Your task to perform on an android device: Search for pizza restaurants on Maps Image 0: 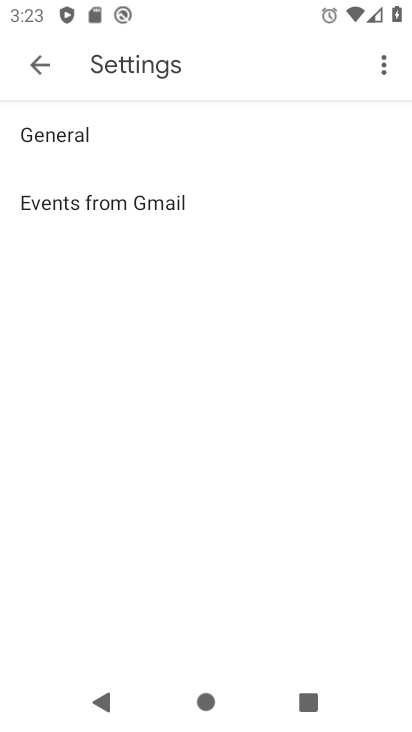
Step 0: press home button
Your task to perform on an android device: Search for pizza restaurants on Maps Image 1: 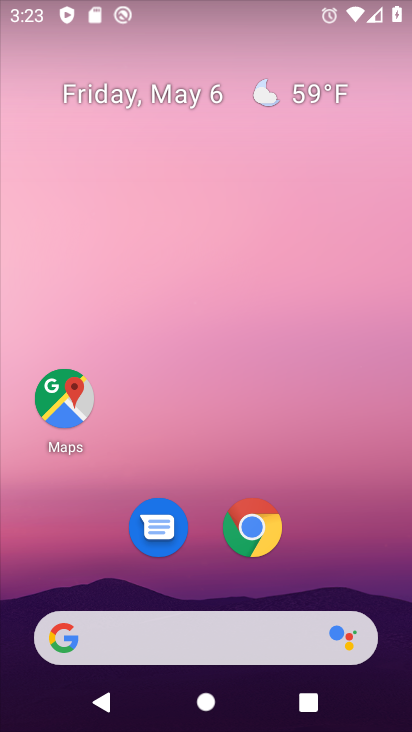
Step 1: click (47, 394)
Your task to perform on an android device: Search for pizza restaurants on Maps Image 2: 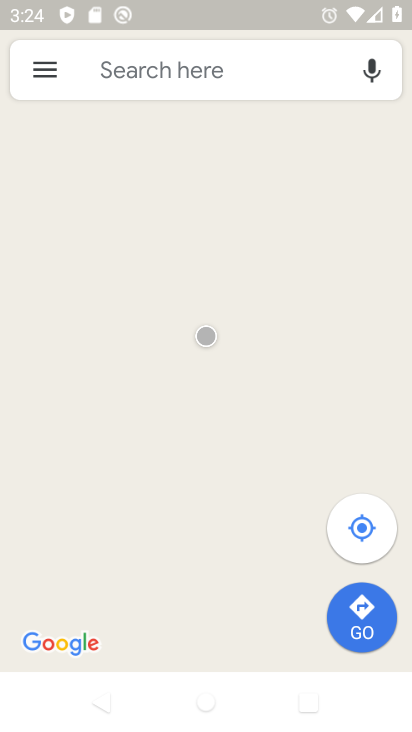
Step 2: click (173, 66)
Your task to perform on an android device: Search for pizza restaurants on Maps Image 3: 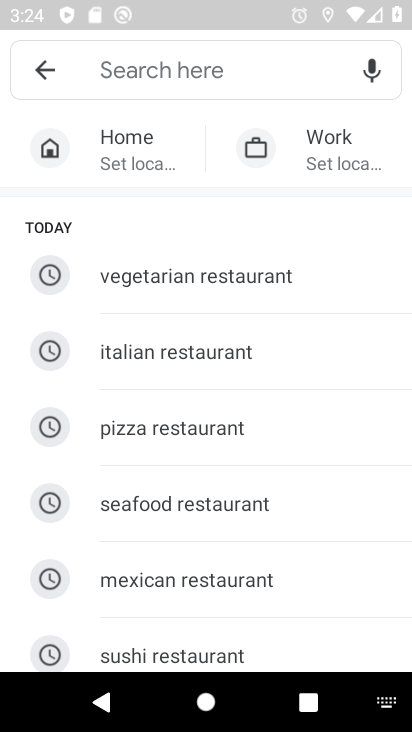
Step 3: type "pizza restaurants "
Your task to perform on an android device: Search for pizza restaurants on Maps Image 4: 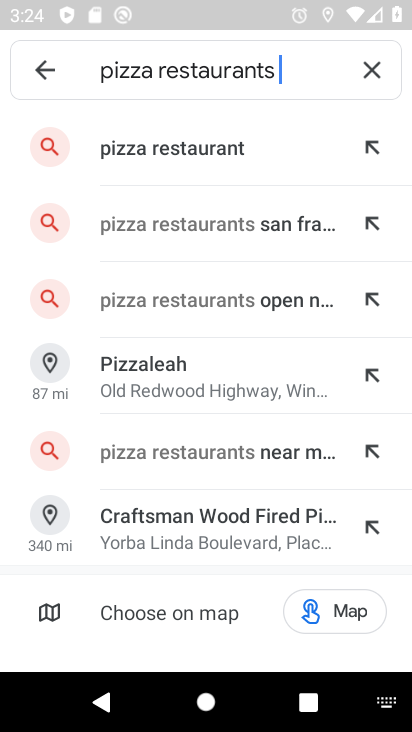
Step 4: press enter
Your task to perform on an android device: Search for pizza restaurants on Maps Image 5: 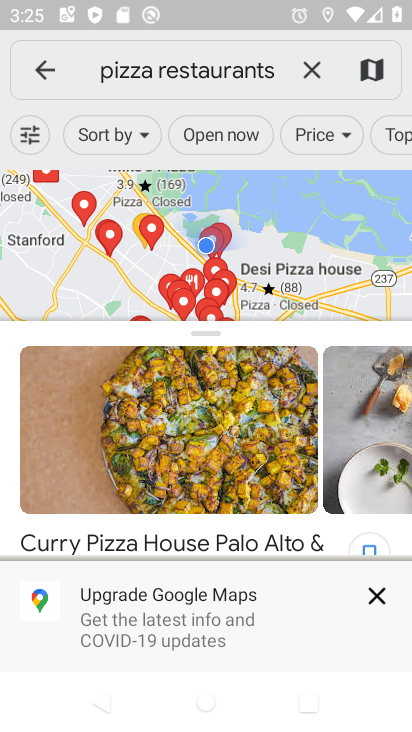
Step 5: task complete